Your task to perform on an android device: Go to internet settings Image 0: 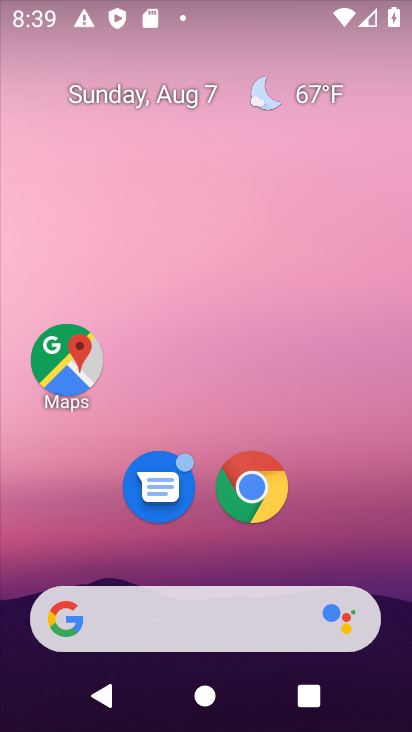
Step 0: drag from (379, 698) to (306, 171)
Your task to perform on an android device: Go to internet settings Image 1: 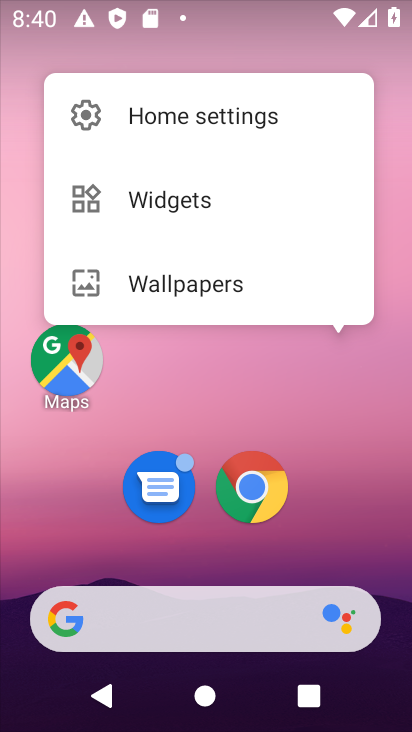
Step 1: click (387, 473)
Your task to perform on an android device: Go to internet settings Image 2: 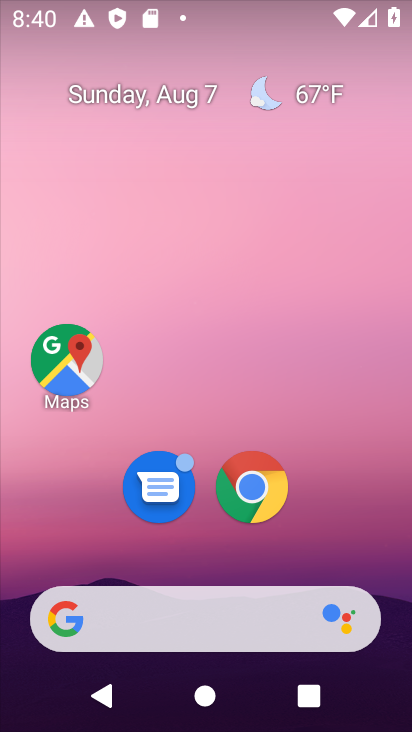
Step 2: drag from (393, 685) to (320, 133)
Your task to perform on an android device: Go to internet settings Image 3: 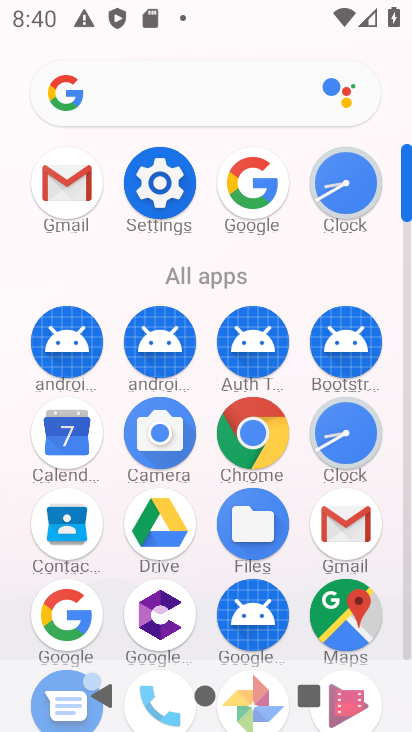
Step 3: click (163, 184)
Your task to perform on an android device: Go to internet settings Image 4: 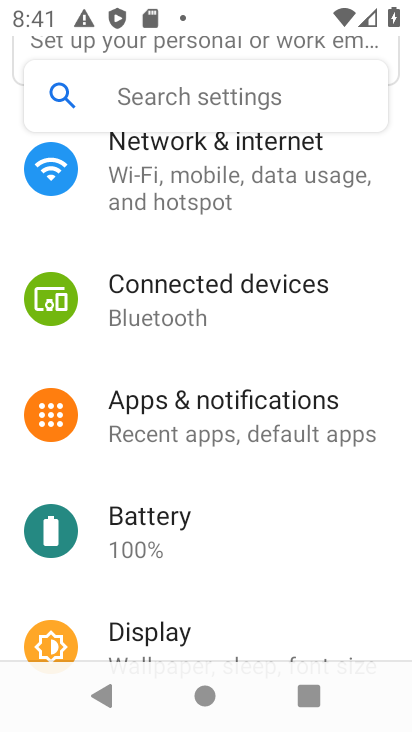
Step 4: click (177, 171)
Your task to perform on an android device: Go to internet settings Image 5: 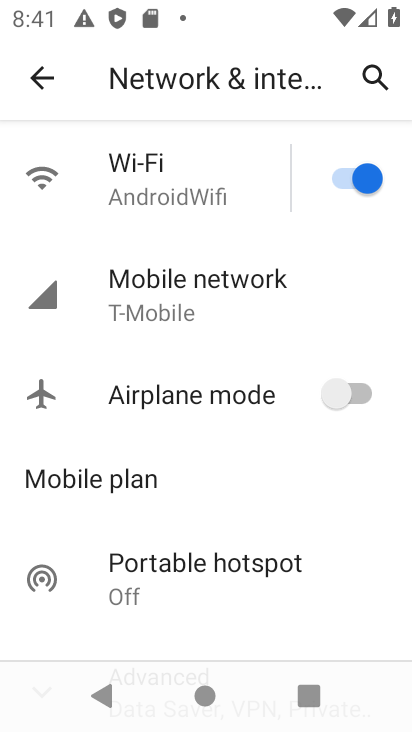
Step 5: drag from (255, 587) to (226, 240)
Your task to perform on an android device: Go to internet settings Image 6: 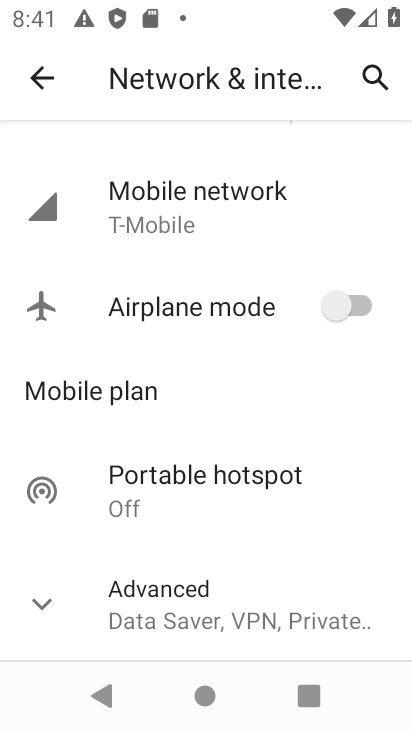
Step 6: click (22, 585)
Your task to perform on an android device: Go to internet settings Image 7: 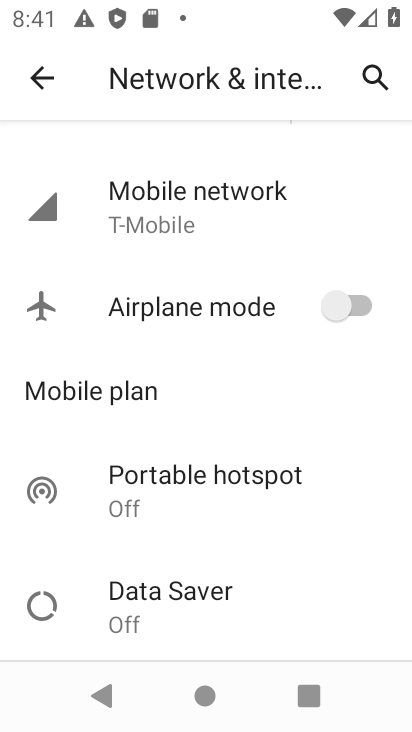
Step 7: task complete